Your task to perform on an android device: toggle show notifications on the lock screen Image 0: 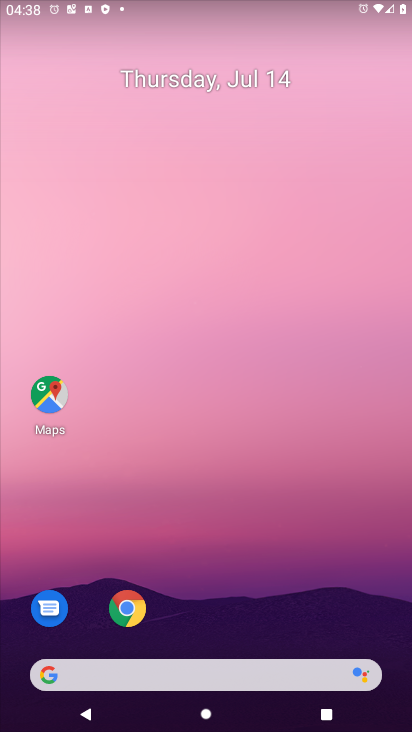
Step 0: drag from (350, 601) to (301, 57)
Your task to perform on an android device: toggle show notifications on the lock screen Image 1: 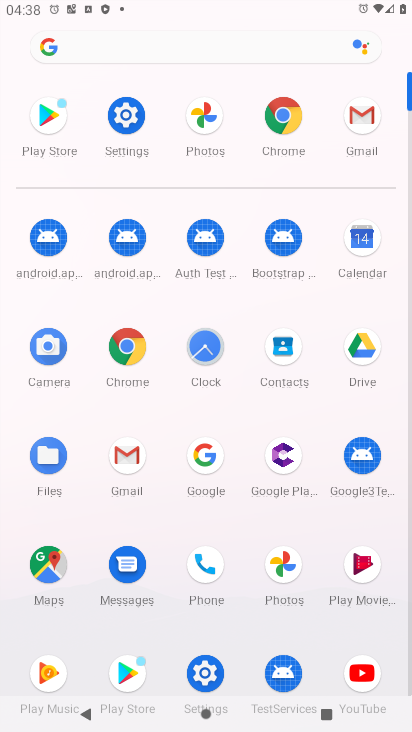
Step 1: click (206, 673)
Your task to perform on an android device: toggle show notifications on the lock screen Image 2: 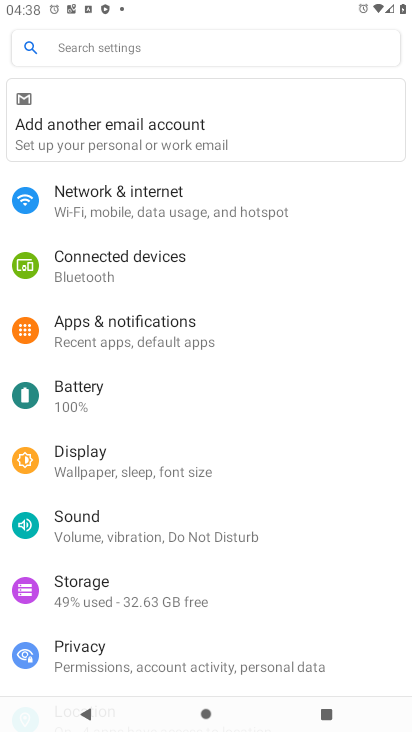
Step 2: click (96, 312)
Your task to perform on an android device: toggle show notifications on the lock screen Image 3: 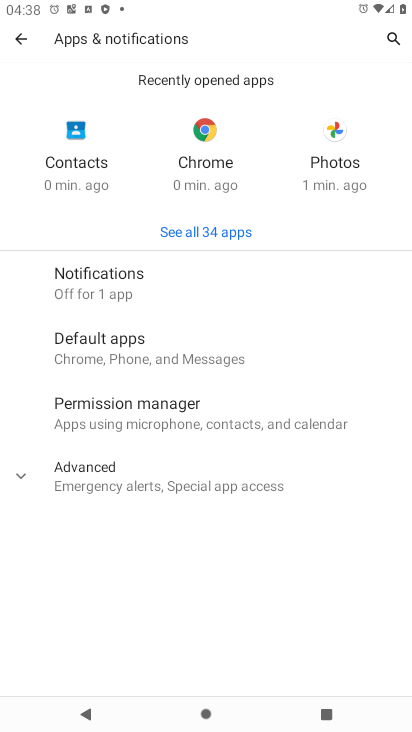
Step 3: click (95, 283)
Your task to perform on an android device: toggle show notifications on the lock screen Image 4: 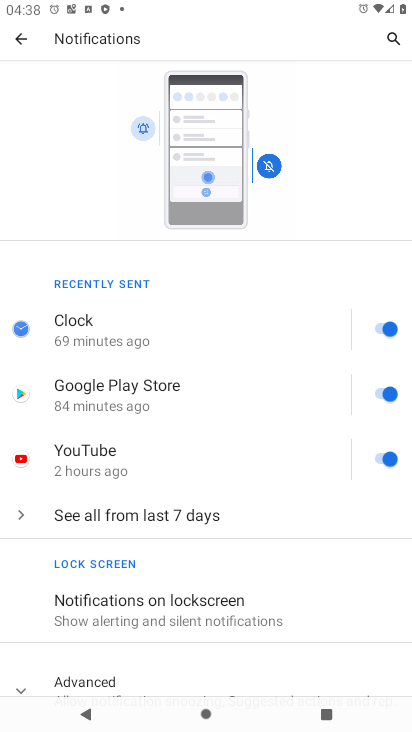
Step 4: click (167, 596)
Your task to perform on an android device: toggle show notifications on the lock screen Image 5: 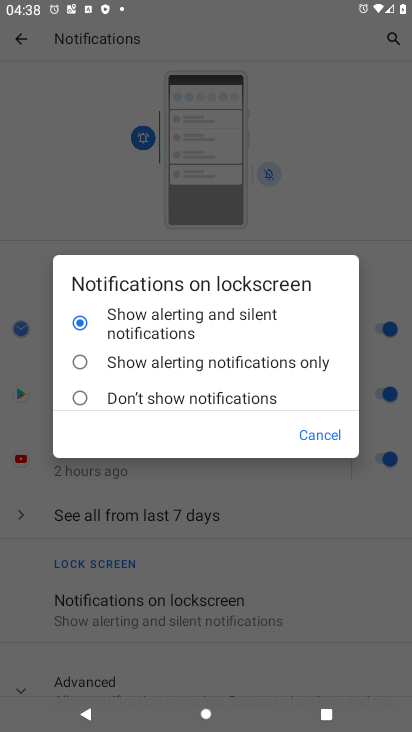
Step 5: click (73, 362)
Your task to perform on an android device: toggle show notifications on the lock screen Image 6: 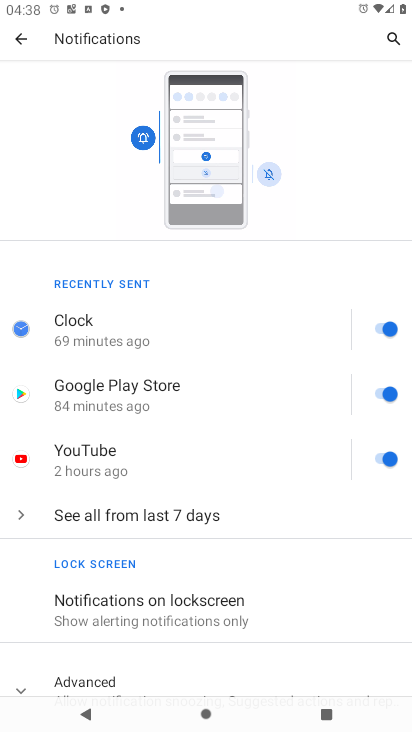
Step 6: task complete